Your task to perform on an android device: change the clock style Image 0: 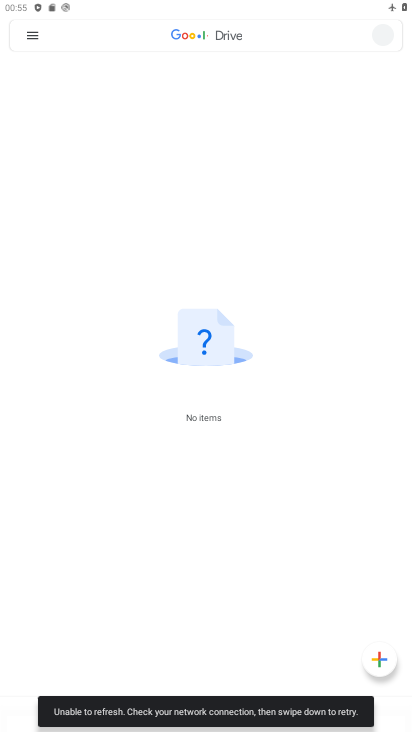
Step 0: drag from (320, 634) to (306, 37)
Your task to perform on an android device: change the clock style Image 1: 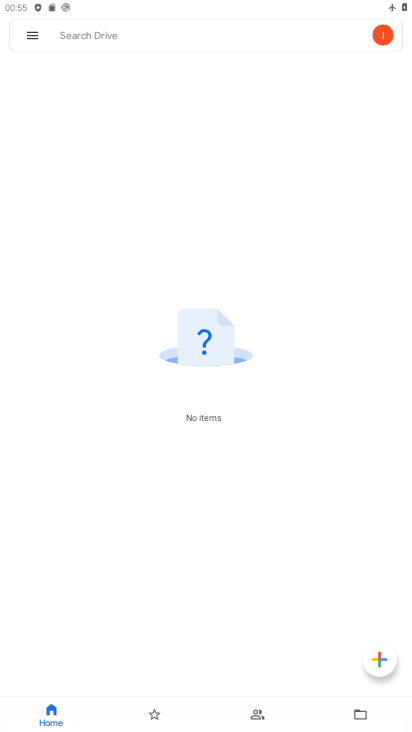
Step 1: press home button
Your task to perform on an android device: change the clock style Image 2: 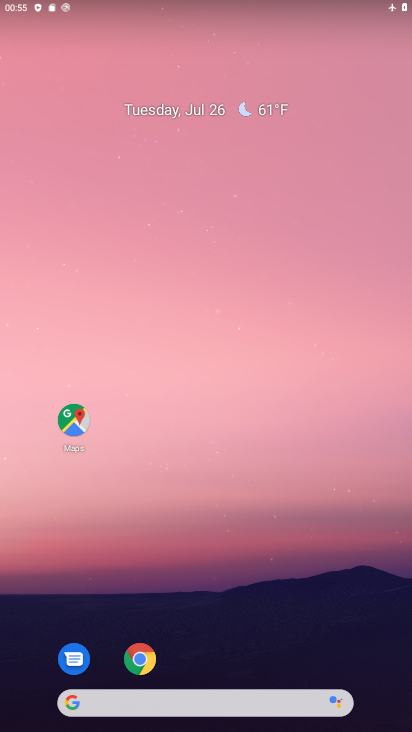
Step 2: drag from (210, 604) to (200, 41)
Your task to perform on an android device: change the clock style Image 3: 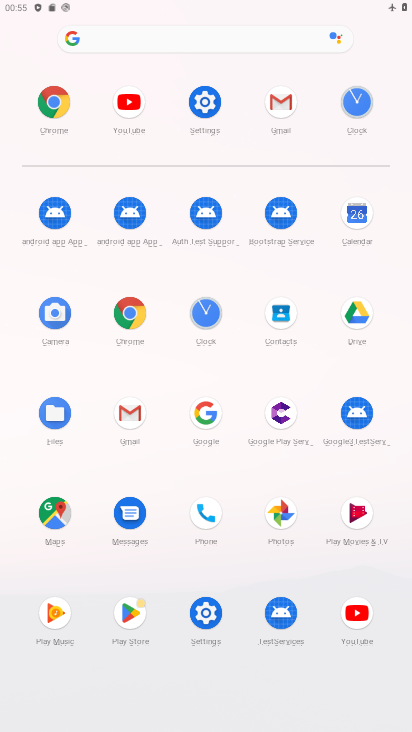
Step 3: click (205, 93)
Your task to perform on an android device: change the clock style Image 4: 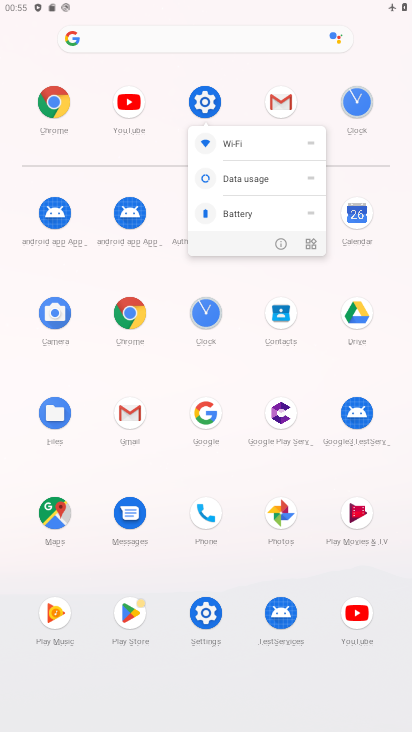
Step 4: click (213, 103)
Your task to perform on an android device: change the clock style Image 5: 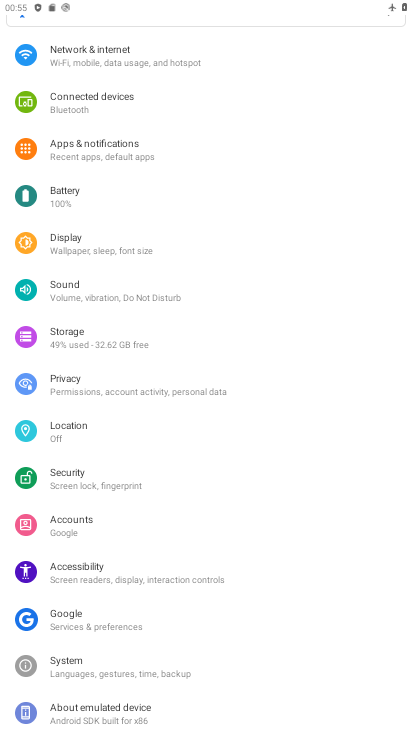
Step 5: press back button
Your task to perform on an android device: change the clock style Image 6: 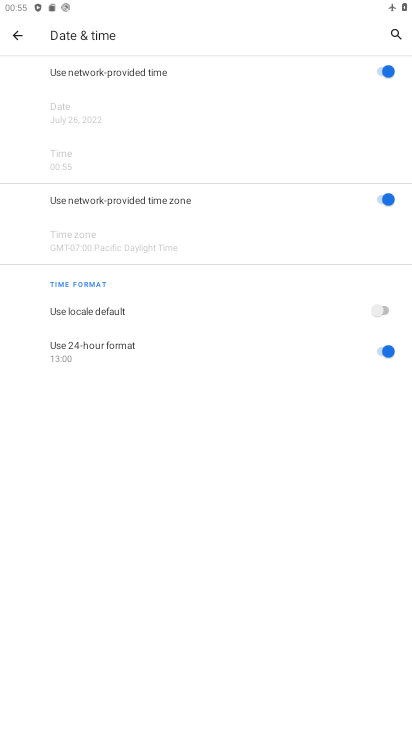
Step 6: press back button
Your task to perform on an android device: change the clock style Image 7: 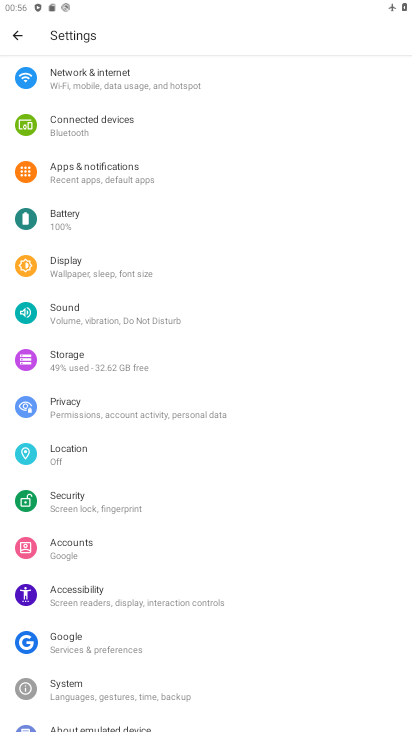
Step 7: press back button
Your task to perform on an android device: change the clock style Image 8: 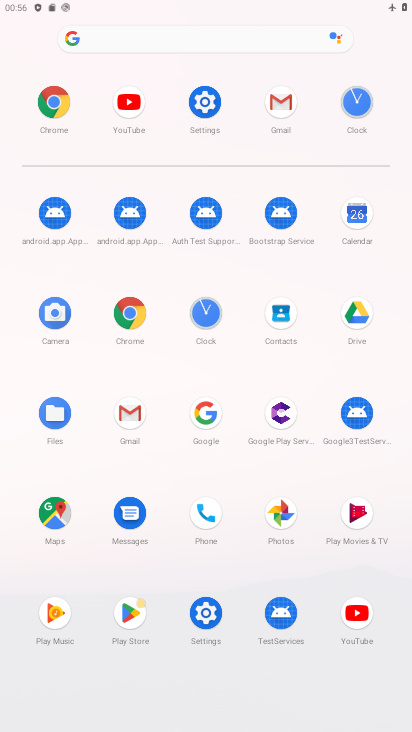
Step 8: click (202, 318)
Your task to perform on an android device: change the clock style Image 9: 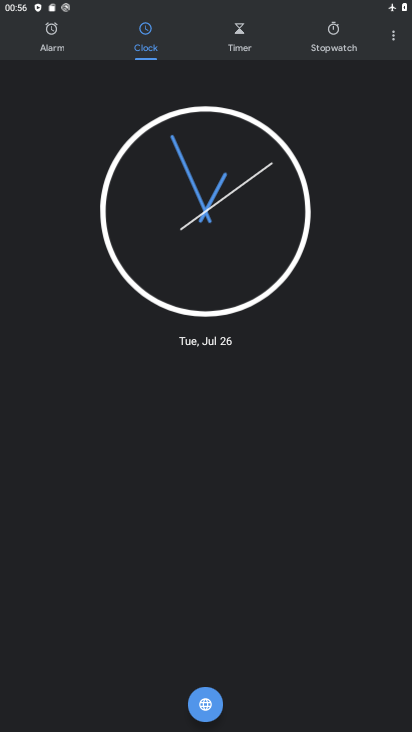
Step 9: click (396, 36)
Your task to perform on an android device: change the clock style Image 10: 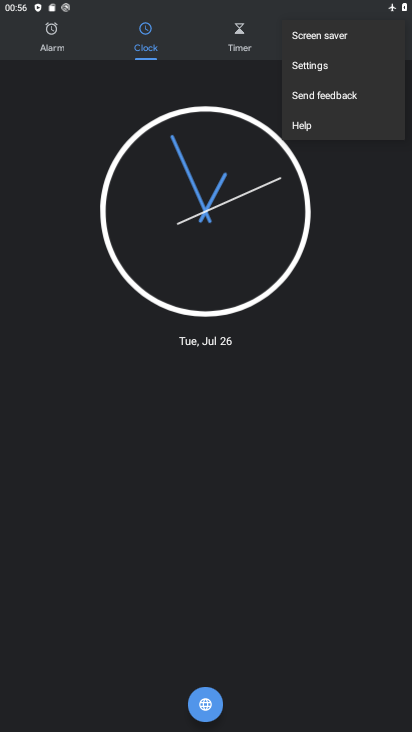
Step 10: click (317, 67)
Your task to perform on an android device: change the clock style Image 11: 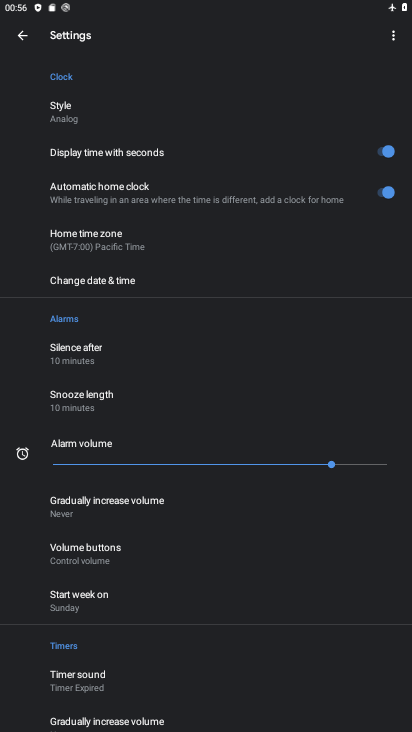
Step 11: click (76, 117)
Your task to perform on an android device: change the clock style Image 12: 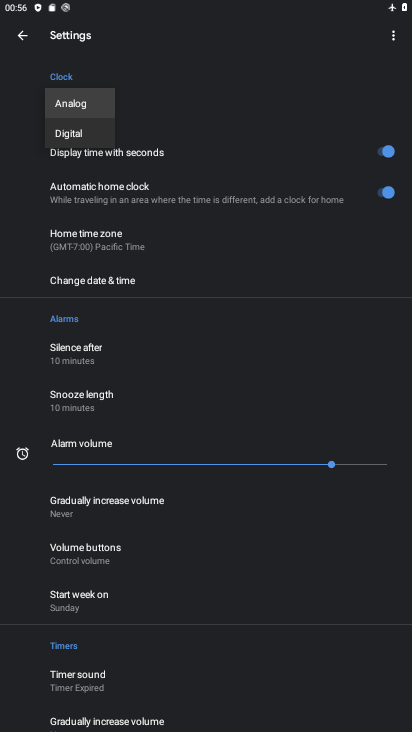
Step 12: click (93, 133)
Your task to perform on an android device: change the clock style Image 13: 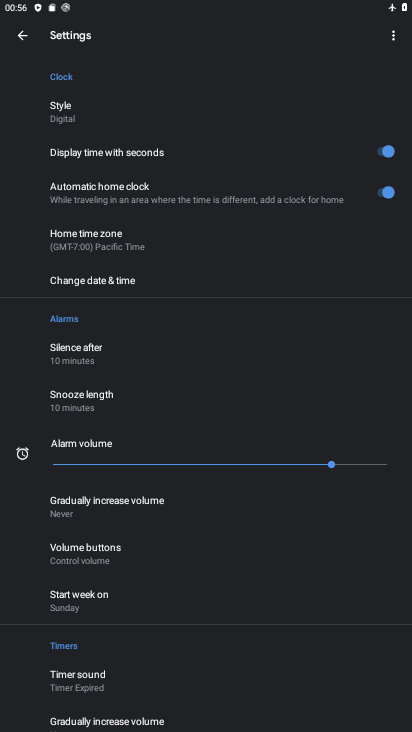
Step 13: task complete